Your task to perform on an android device: Go to Reddit.com Image 0: 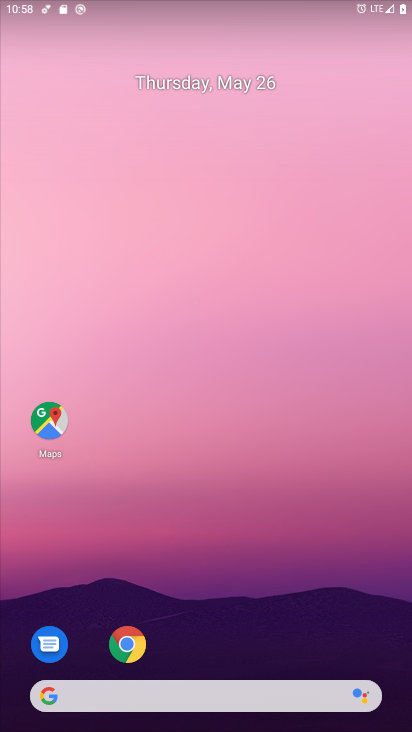
Step 0: drag from (333, 638) to (335, 249)
Your task to perform on an android device: Go to Reddit.com Image 1: 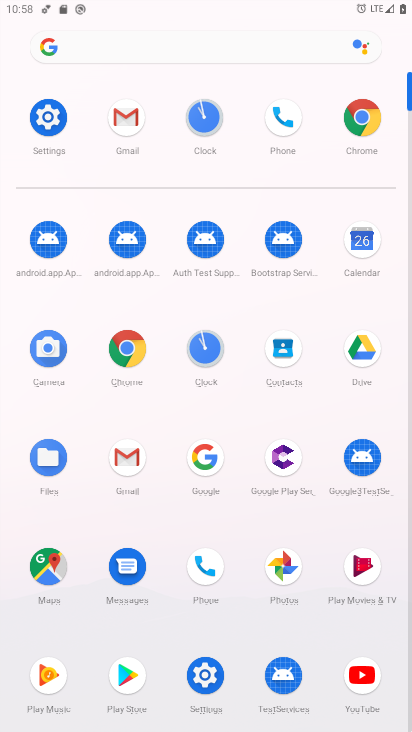
Step 1: click (128, 355)
Your task to perform on an android device: Go to Reddit.com Image 2: 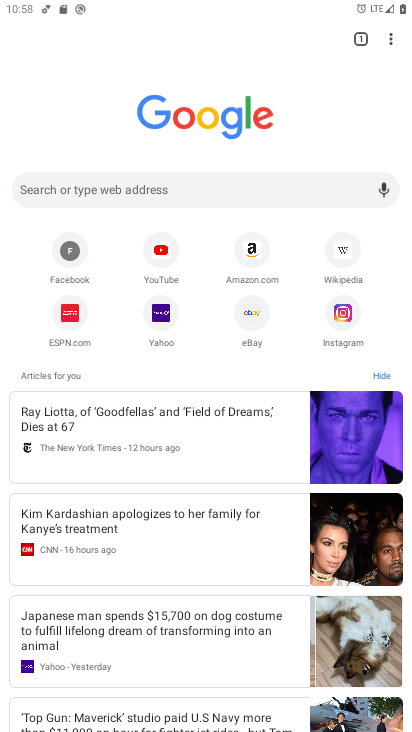
Step 2: click (227, 189)
Your task to perform on an android device: Go to Reddit.com Image 3: 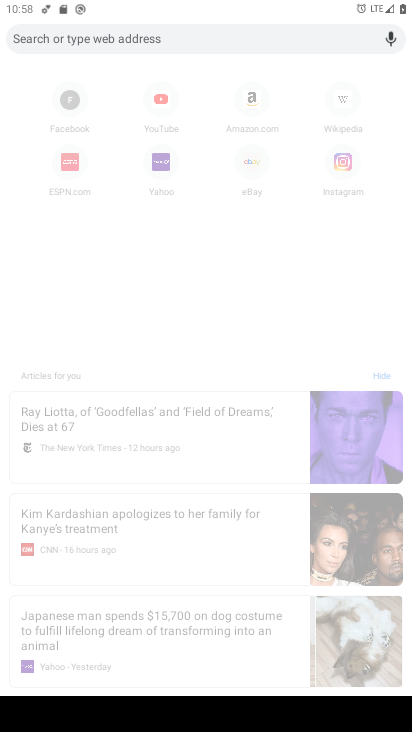
Step 3: type "reddit.com"
Your task to perform on an android device: Go to Reddit.com Image 4: 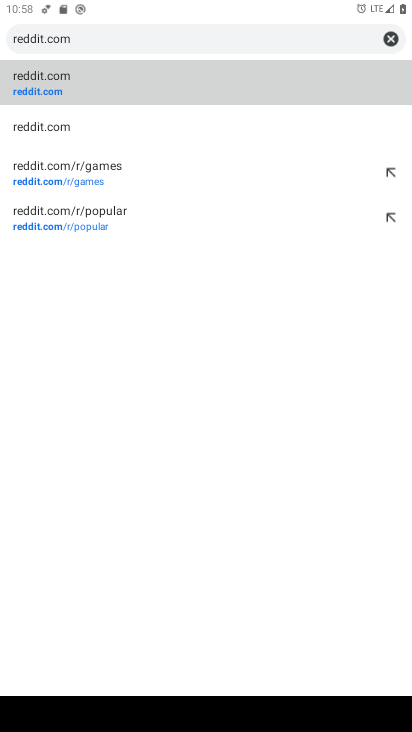
Step 4: click (78, 86)
Your task to perform on an android device: Go to Reddit.com Image 5: 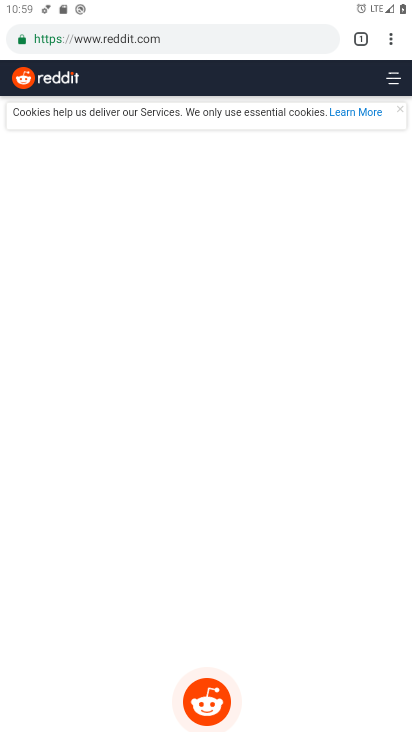
Step 5: task complete